Your task to perform on an android device: Open the web browser Image 0: 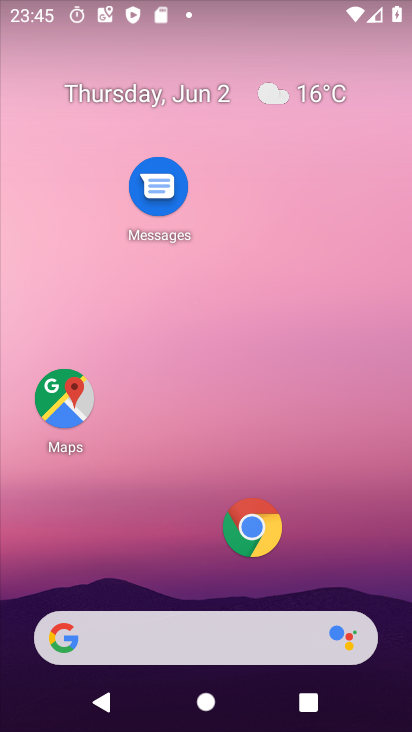
Step 0: press home button
Your task to perform on an android device: Open the web browser Image 1: 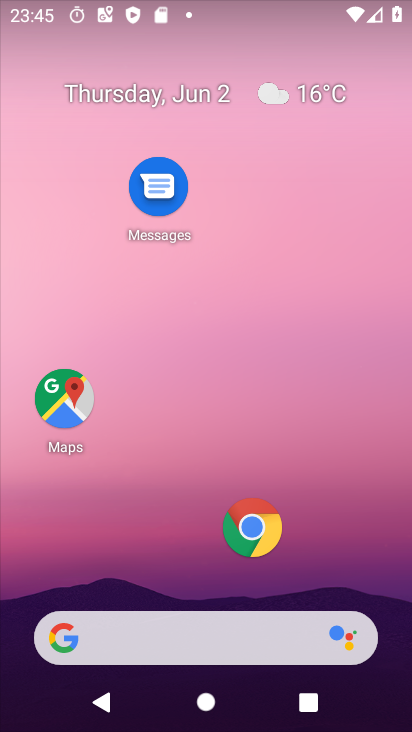
Step 1: click (250, 529)
Your task to perform on an android device: Open the web browser Image 2: 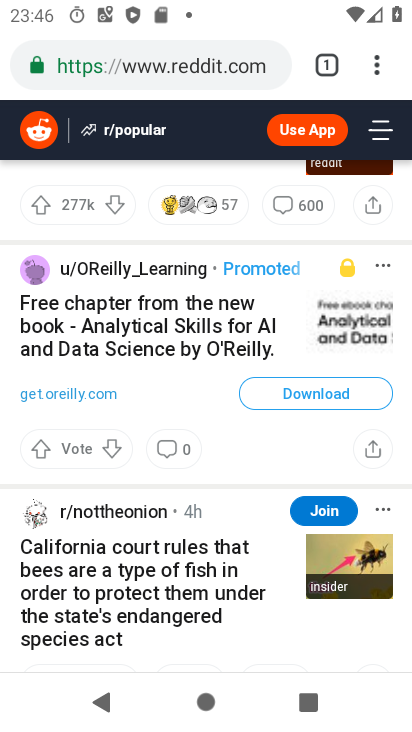
Step 2: click (325, 68)
Your task to perform on an android device: Open the web browser Image 3: 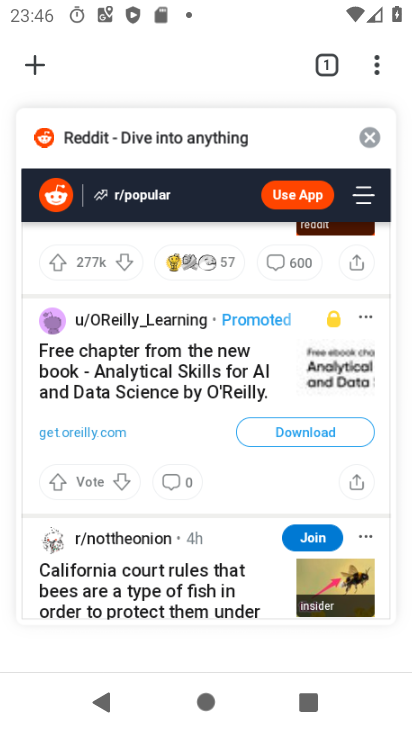
Step 3: click (370, 133)
Your task to perform on an android device: Open the web browser Image 4: 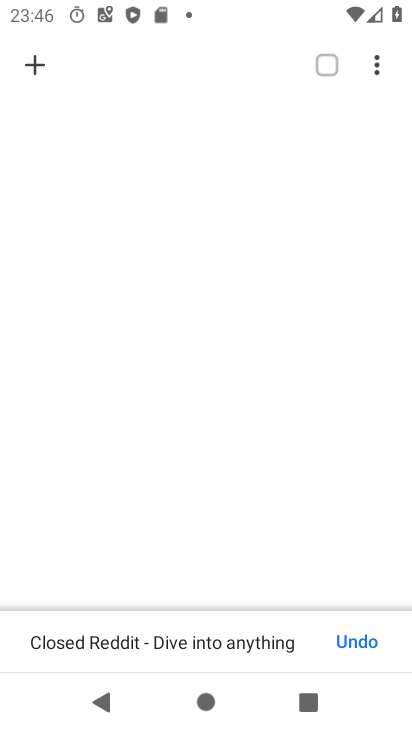
Step 4: click (41, 66)
Your task to perform on an android device: Open the web browser Image 5: 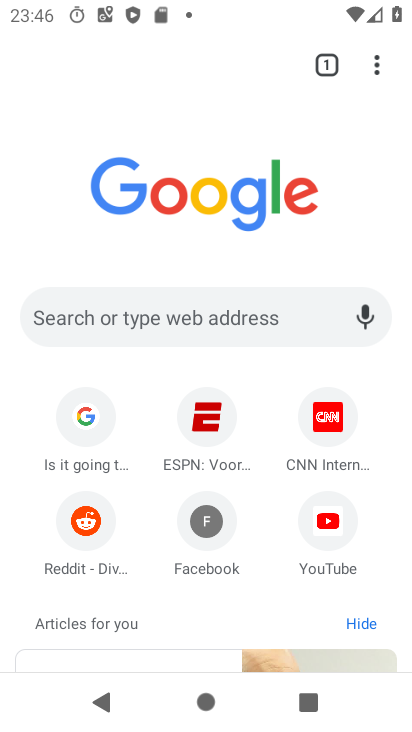
Step 5: task complete